Your task to perform on an android device: turn on showing notifications on the lock screen Image 0: 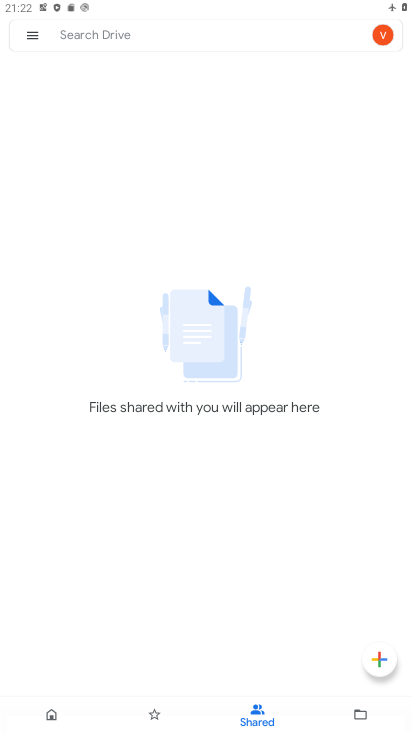
Step 0: press home button
Your task to perform on an android device: turn on showing notifications on the lock screen Image 1: 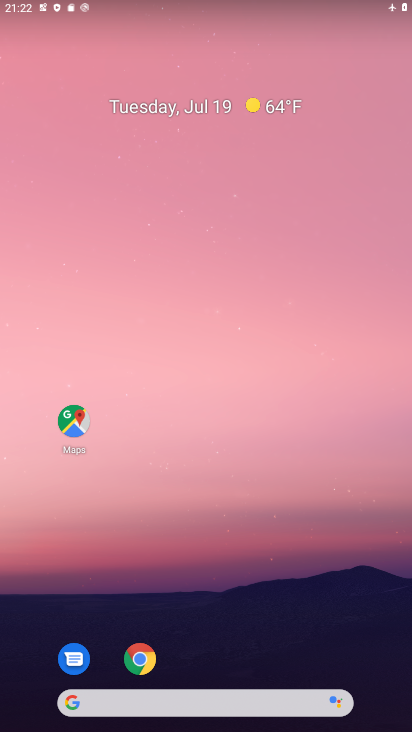
Step 1: drag from (198, 651) to (215, 87)
Your task to perform on an android device: turn on showing notifications on the lock screen Image 2: 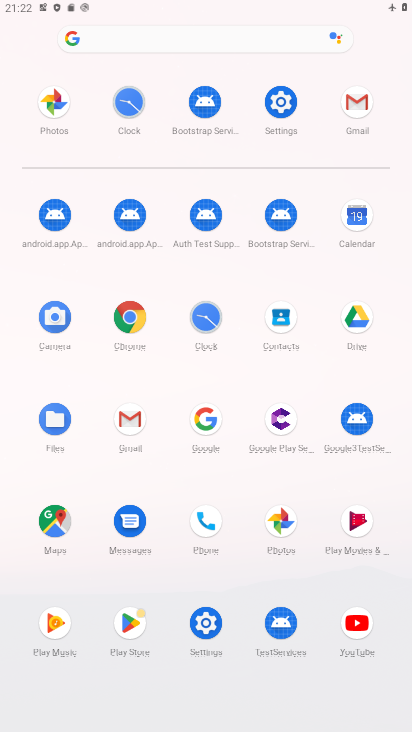
Step 2: click (189, 614)
Your task to perform on an android device: turn on showing notifications on the lock screen Image 3: 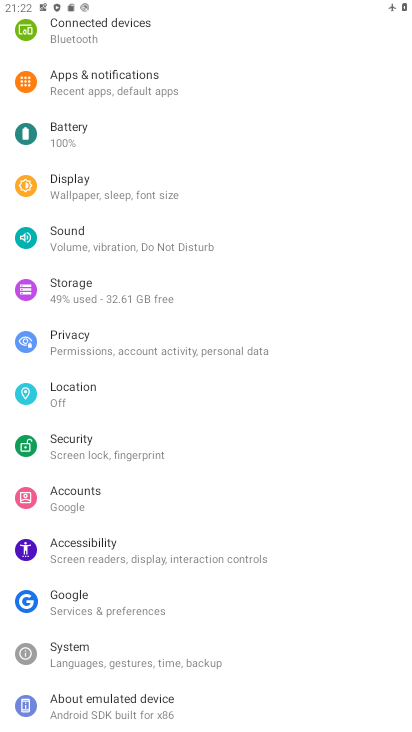
Step 3: click (88, 98)
Your task to perform on an android device: turn on showing notifications on the lock screen Image 4: 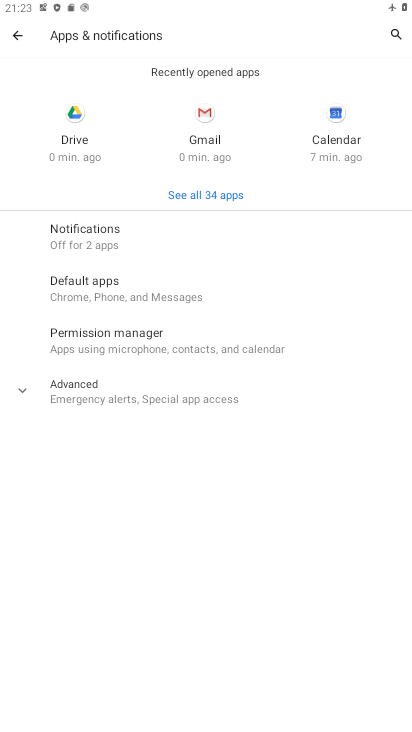
Step 4: click (155, 399)
Your task to perform on an android device: turn on showing notifications on the lock screen Image 5: 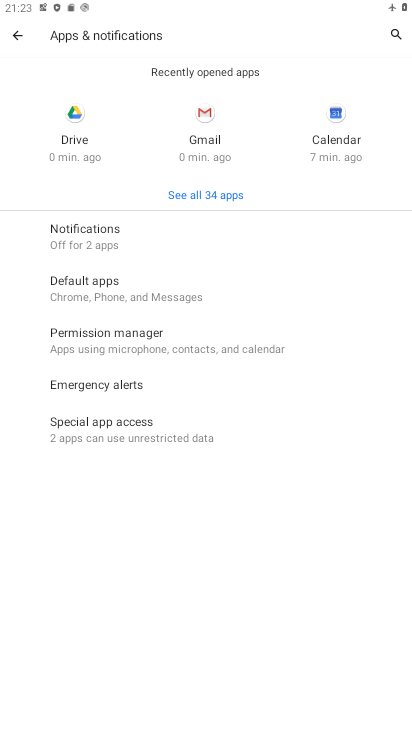
Step 5: click (128, 240)
Your task to perform on an android device: turn on showing notifications on the lock screen Image 6: 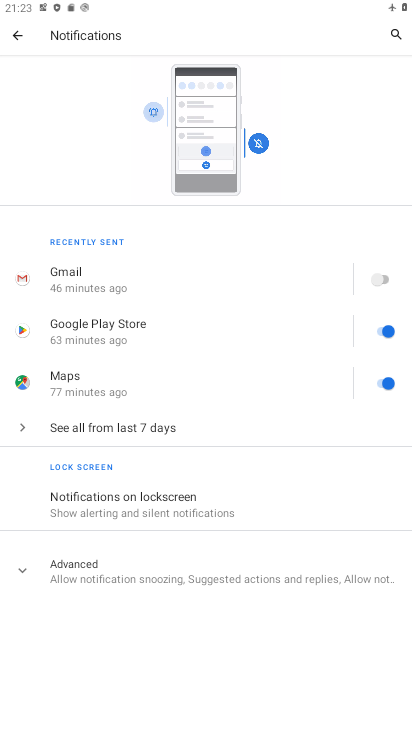
Step 6: click (202, 508)
Your task to perform on an android device: turn on showing notifications on the lock screen Image 7: 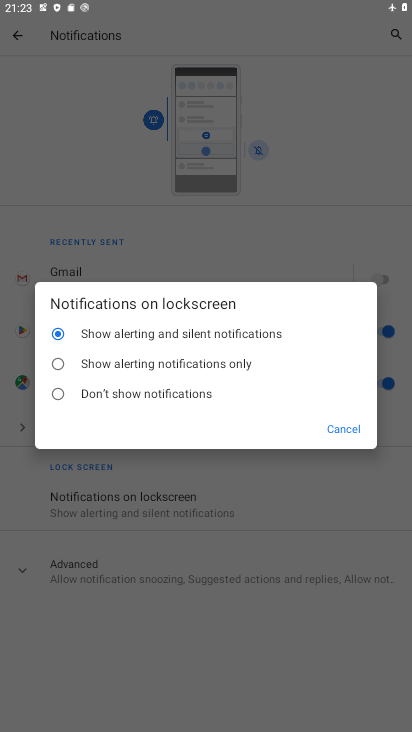
Step 7: task complete